Your task to perform on an android device: Go to internet settings Image 0: 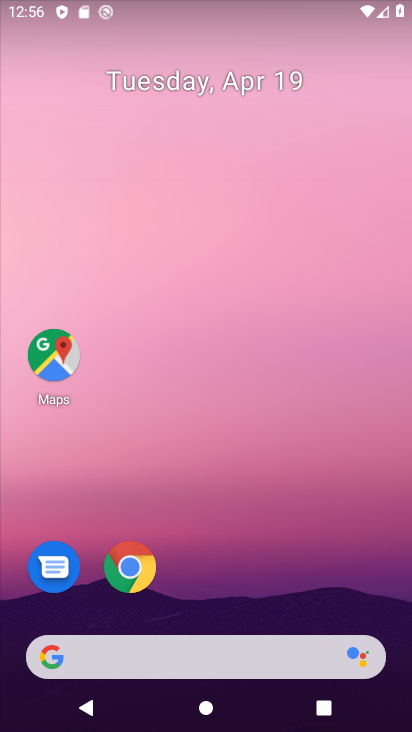
Step 0: drag from (401, 653) to (366, 54)
Your task to perform on an android device: Go to internet settings Image 1: 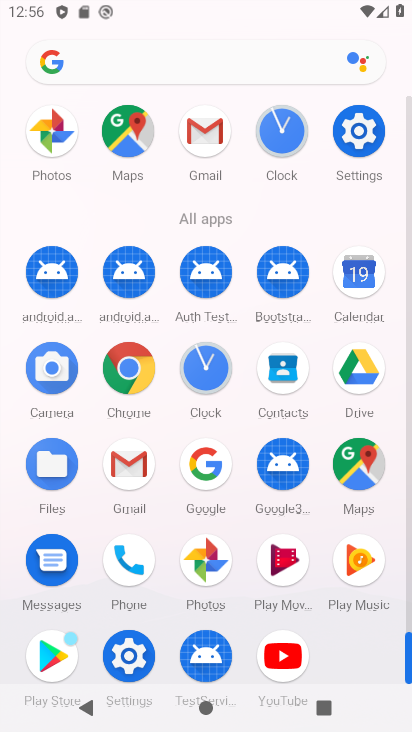
Step 1: click (126, 660)
Your task to perform on an android device: Go to internet settings Image 2: 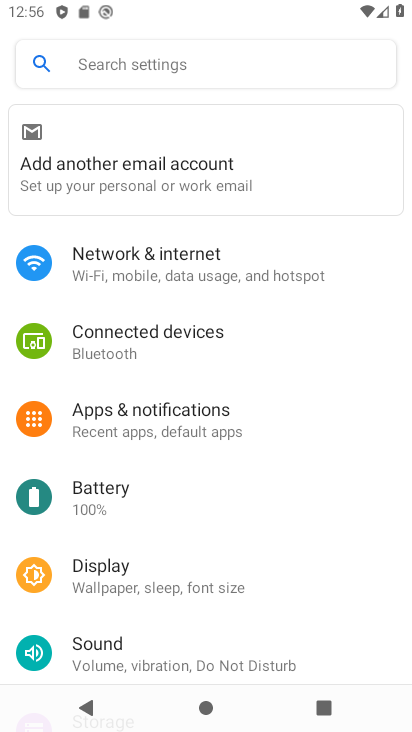
Step 2: click (136, 258)
Your task to perform on an android device: Go to internet settings Image 3: 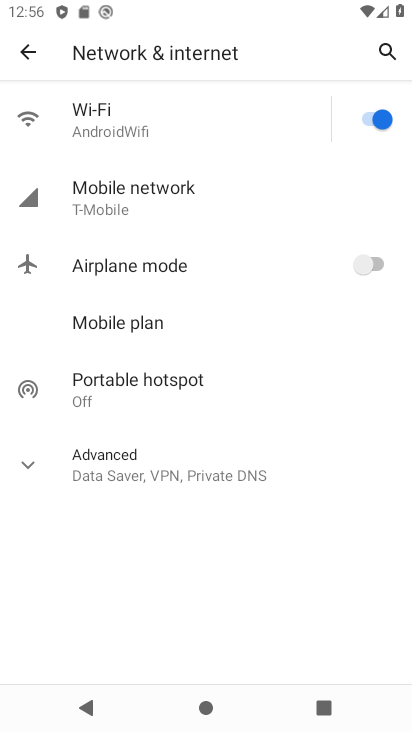
Step 3: click (112, 195)
Your task to perform on an android device: Go to internet settings Image 4: 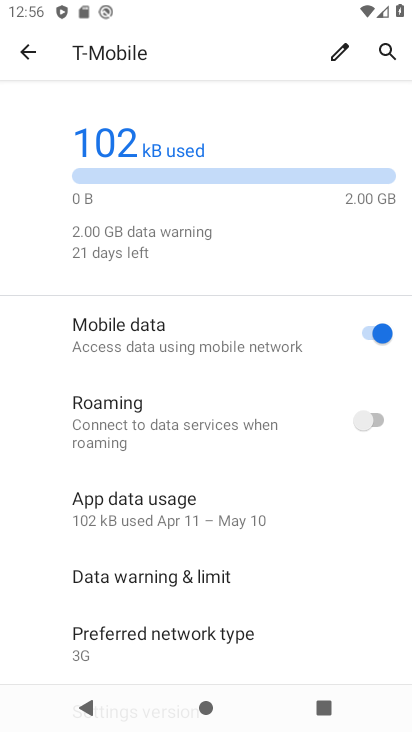
Step 4: task complete